Your task to perform on an android device: Open maps Image 0: 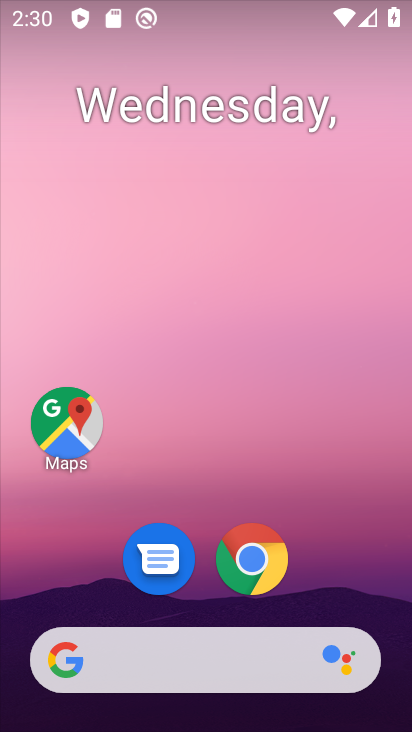
Step 0: drag from (182, 725) to (172, 151)
Your task to perform on an android device: Open maps Image 1: 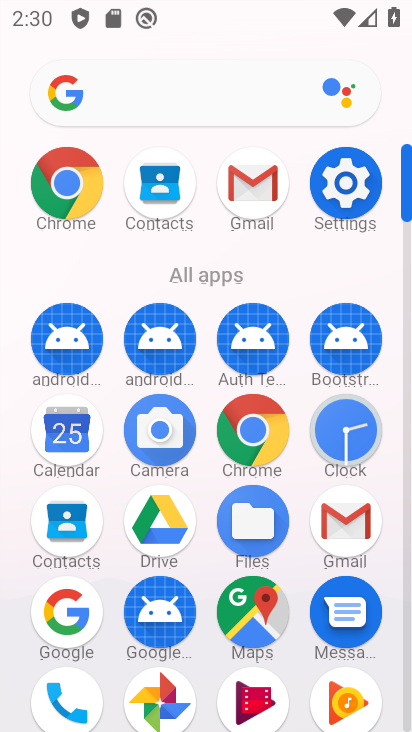
Step 1: click (250, 599)
Your task to perform on an android device: Open maps Image 2: 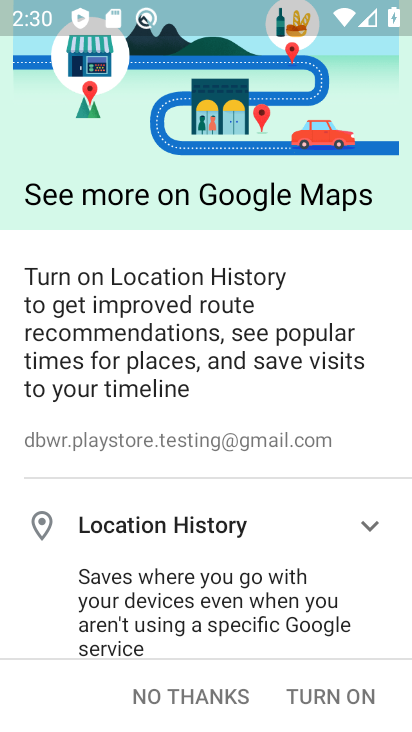
Step 2: click (211, 693)
Your task to perform on an android device: Open maps Image 3: 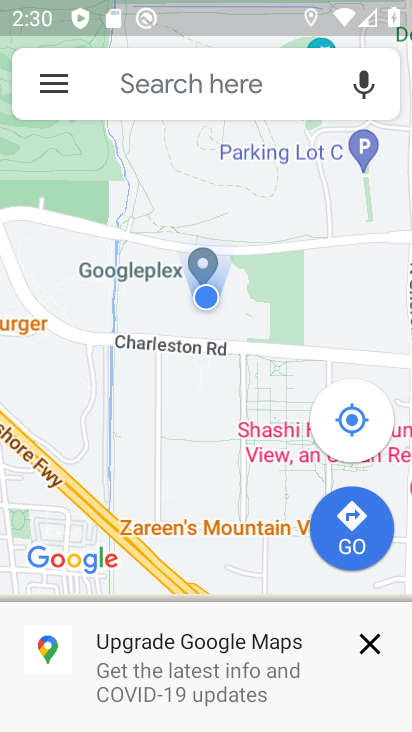
Step 3: task complete